Your task to perform on an android device: Open calendar and show me the first week of next month Image 0: 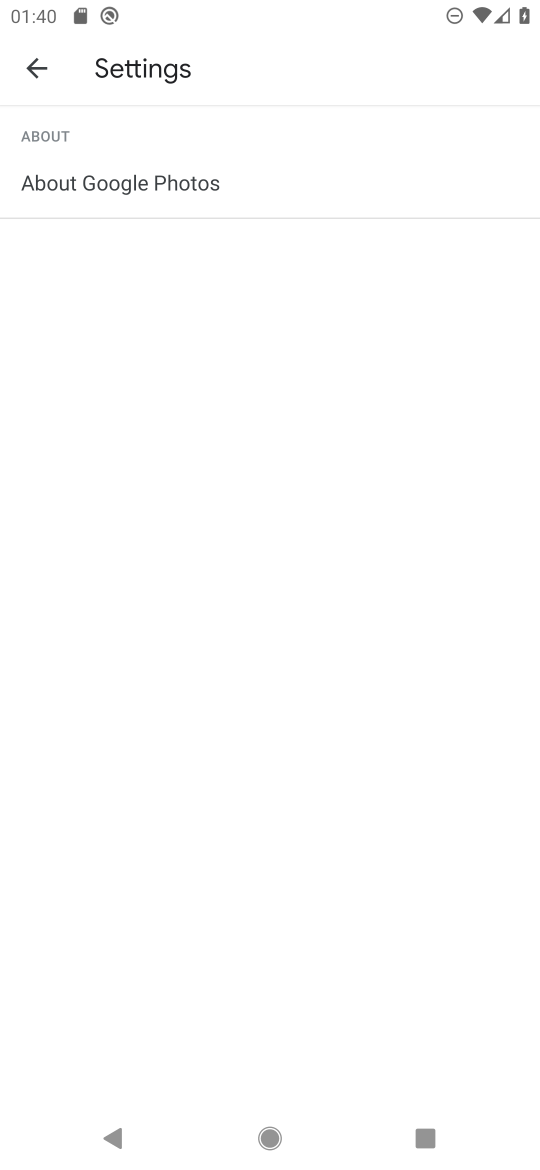
Step 0: press home button
Your task to perform on an android device: Open calendar and show me the first week of next month Image 1: 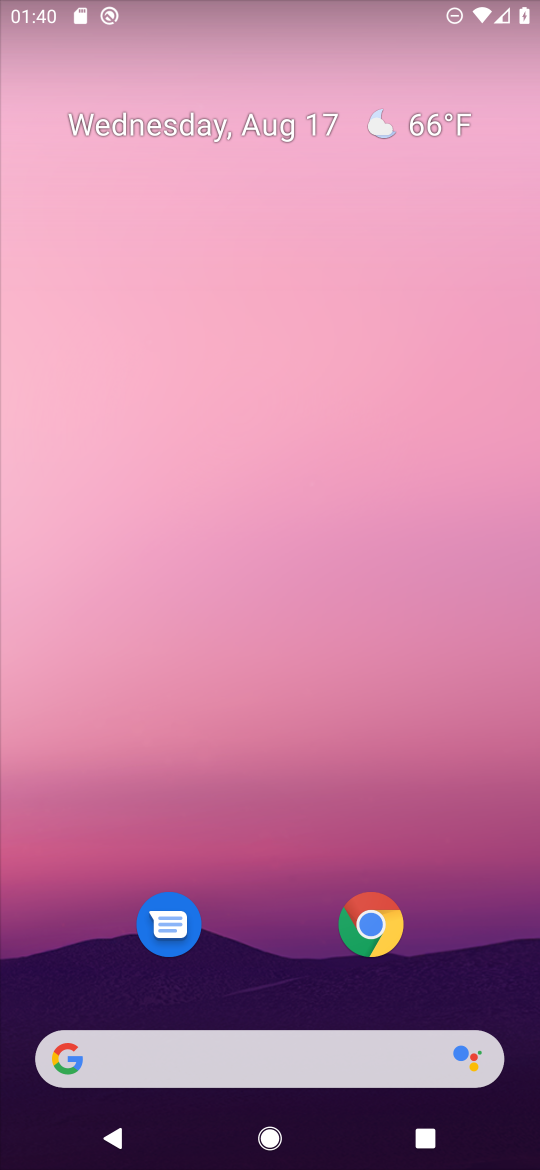
Step 1: click (280, 127)
Your task to perform on an android device: Open calendar and show me the first week of next month Image 2: 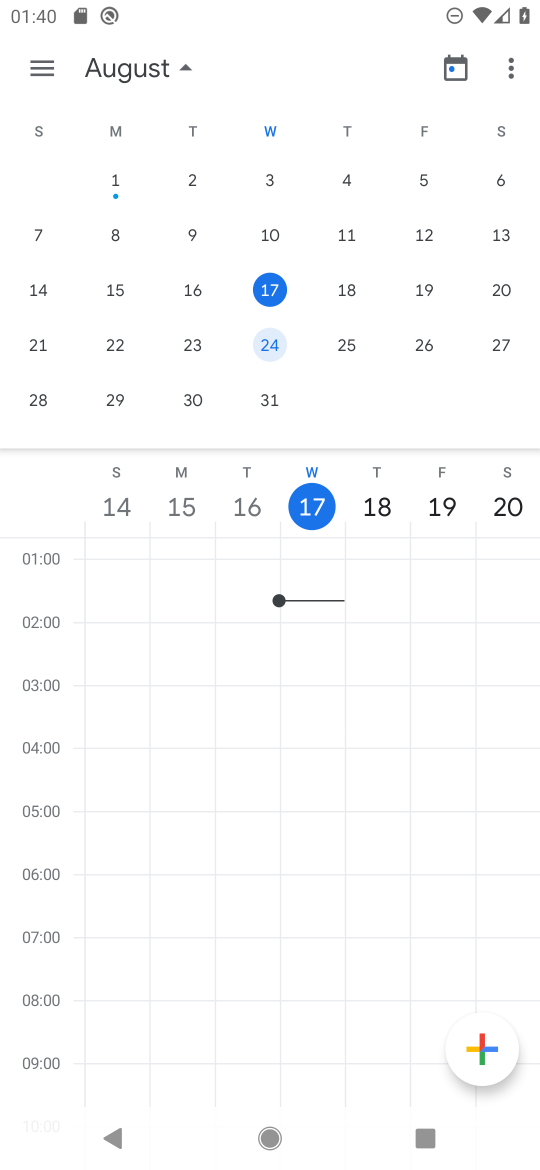
Step 2: drag from (294, 410) to (8, 372)
Your task to perform on an android device: Open calendar and show me the first week of next month Image 3: 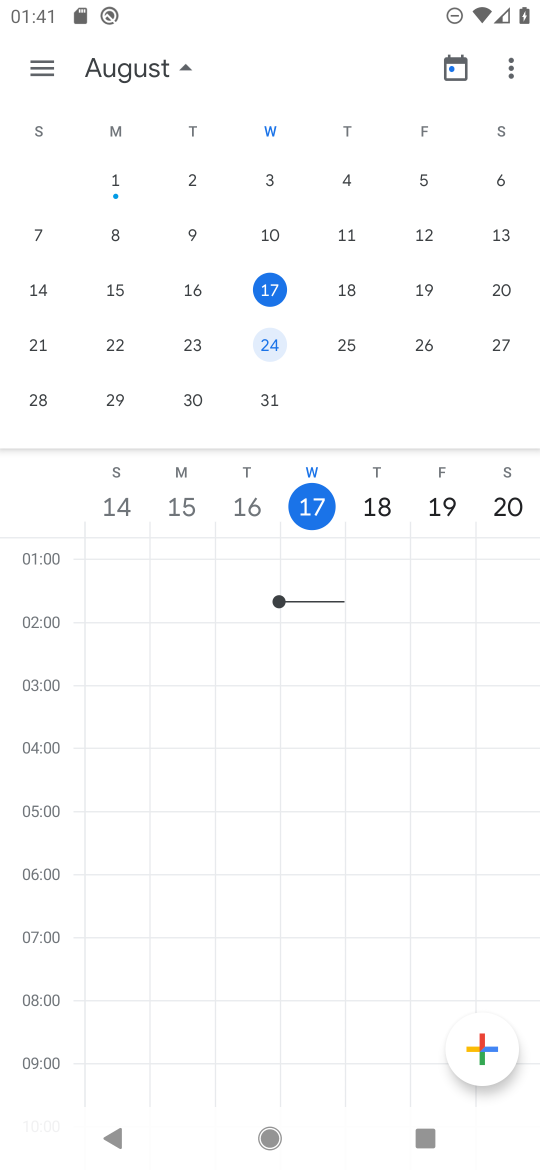
Step 3: drag from (507, 409) to (52, 407)
Your task to perform on an android device: Open calendar and show me the first week of next month Image 4: 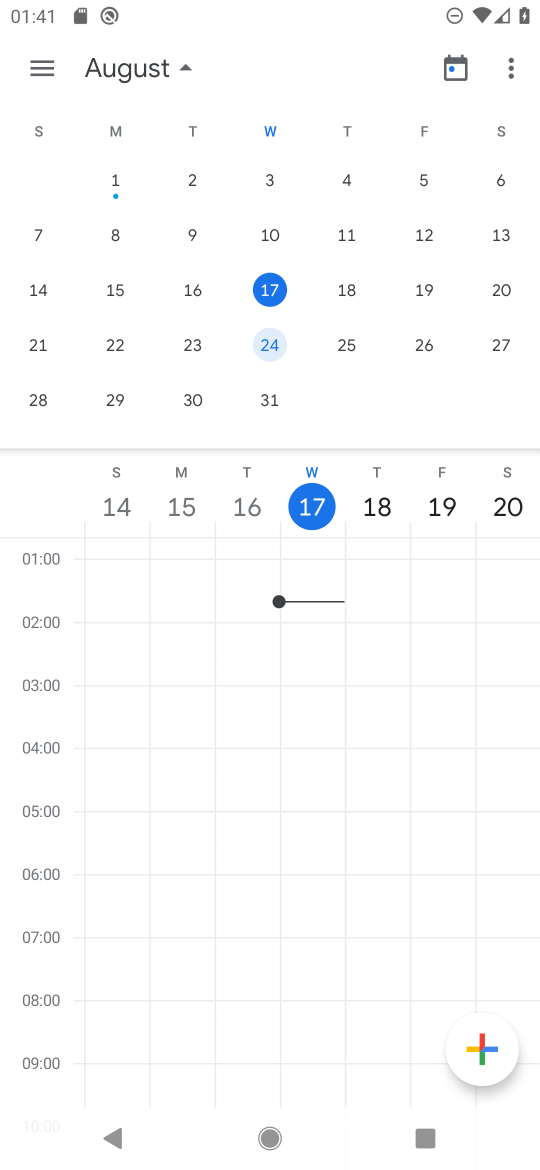
Step 4: drag from (495, 419) to (118, 367)
Your task to perform on an android device: Open calendar and show me the first week of next month Image 5: 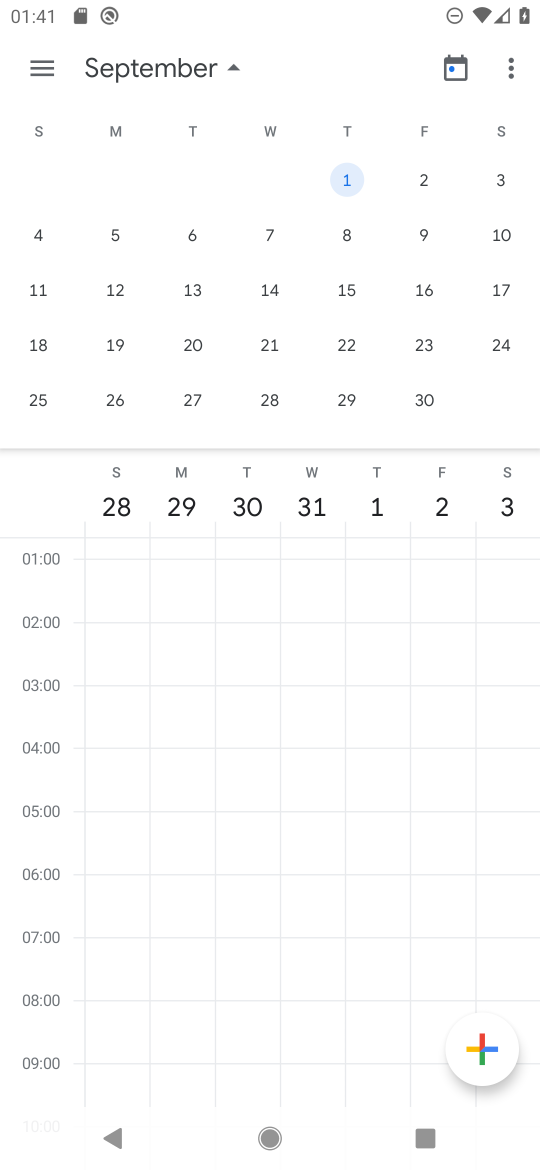
Step 5: click (425, 183)
Your task to perform on an android device: Open calendar and show me the first week of next month Image 6: 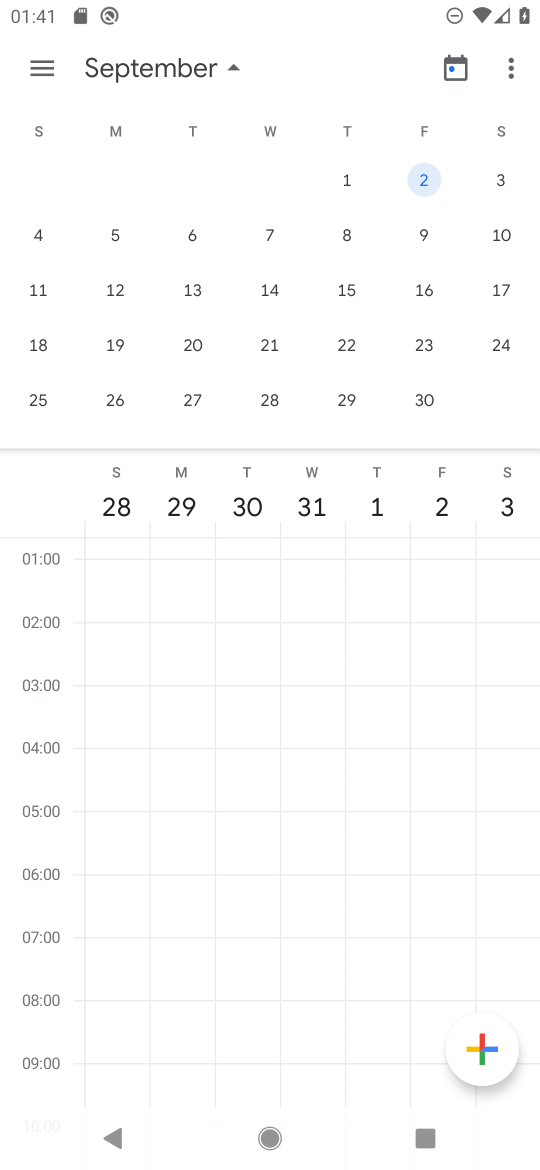
Step 6: task complete